Your task to perform on an android device: manage bookmarks in the chrome app Image 0: 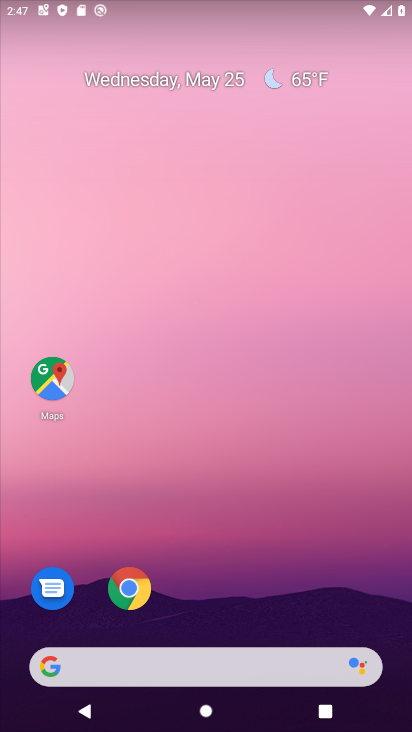
Step 0: click (130, 591)
Your task to perform on an android device: manage bookmarks in the chrome app Image 1: 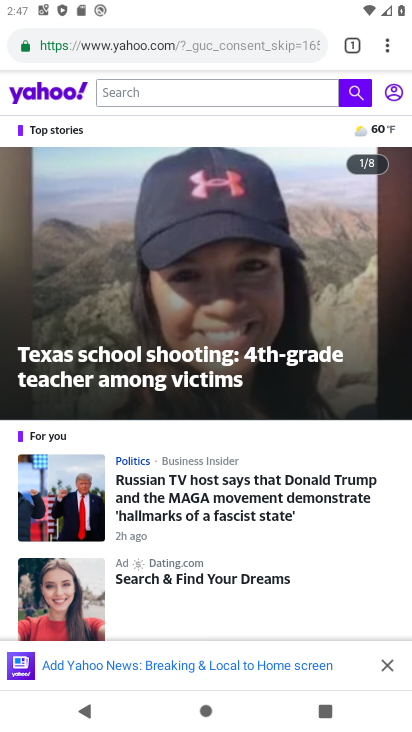
Step 1: click (387, 44)
Your task to perform on an android device: manage bookmarks in the chrome app Image 2: 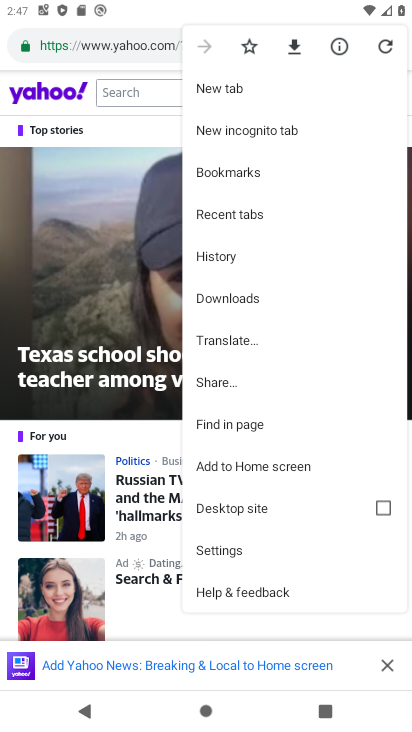
Step 2: click (253, 171)
Your task to perform on an android device: manage bookmarks in the chrome app Image 3: 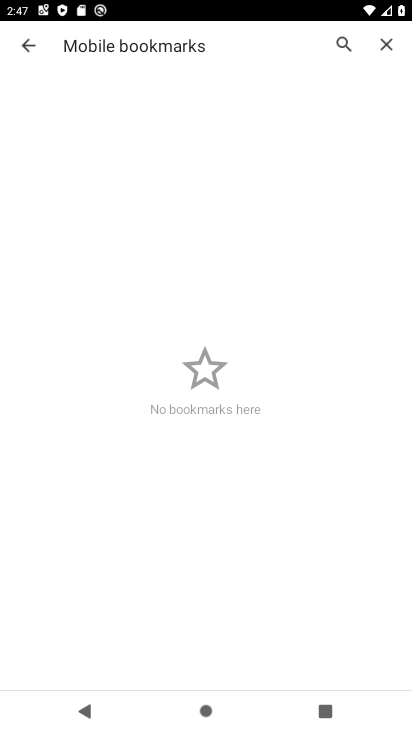
Step 3: task complete